Your task to perform on an android device: When is my next appointment? Image 0: 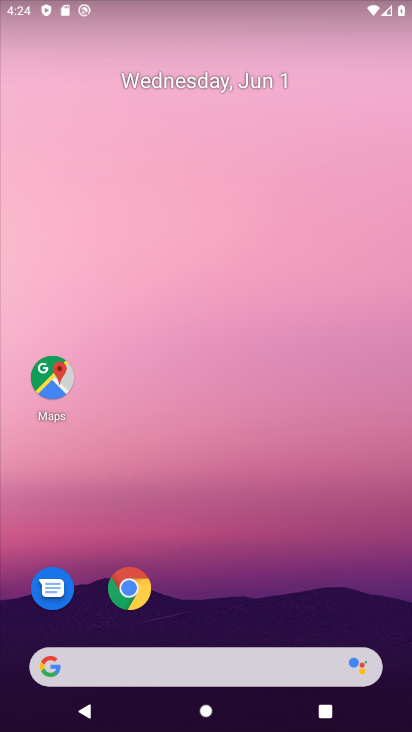
Step 0: drag from (287, 604) to (269, 186)
Your task to perform on an android device: When is my next appointment? Image 1: 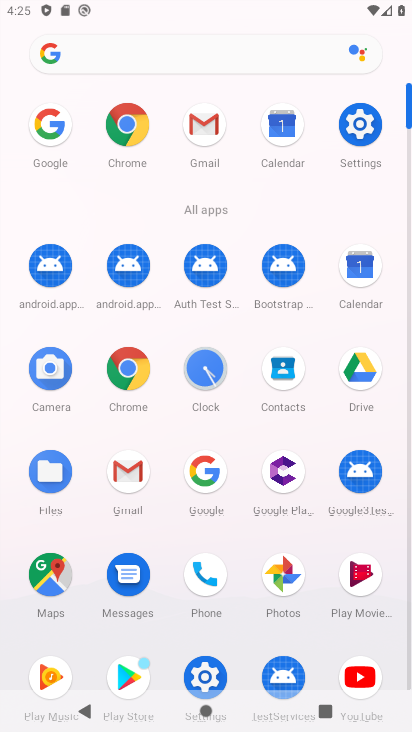
Step 1: drag from (244, 571) to (246, 308)
Your task to perform on an android device: When is my next appointment? Image 2: 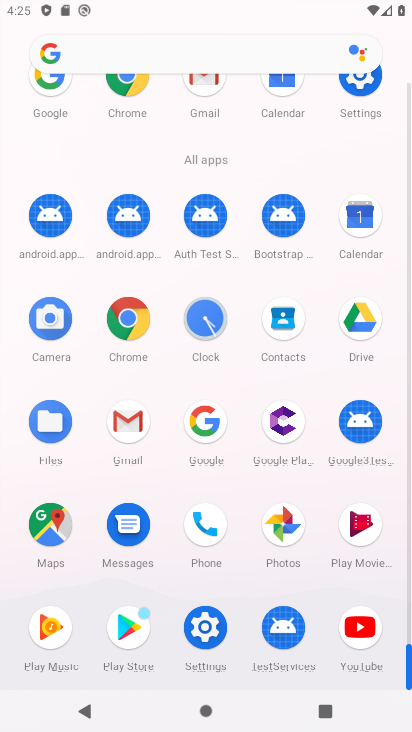
Step 2: click (360, 218)
Your task to perform on an android device: When is my next appointment? Image 3: 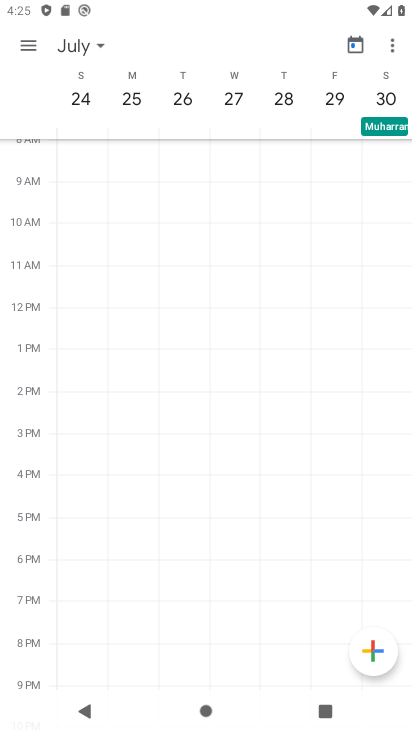
Step 3: click (355, 46)
Your task to perform on an android device: When is my next appointment? Image 4: 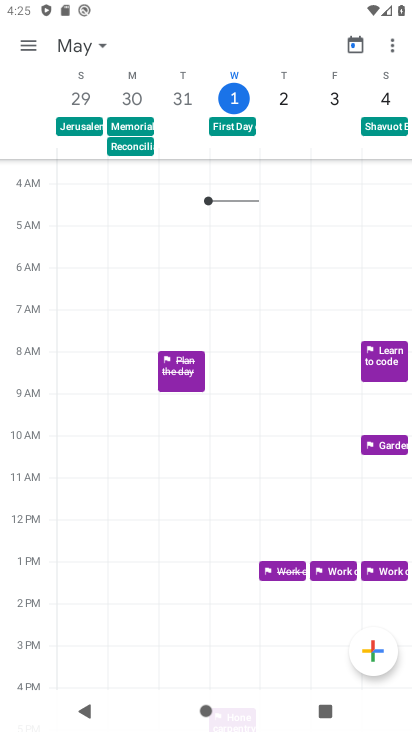
Step 4: click (101, 46)
Your task to perform on an android device: When is my next appointment? Image 5: 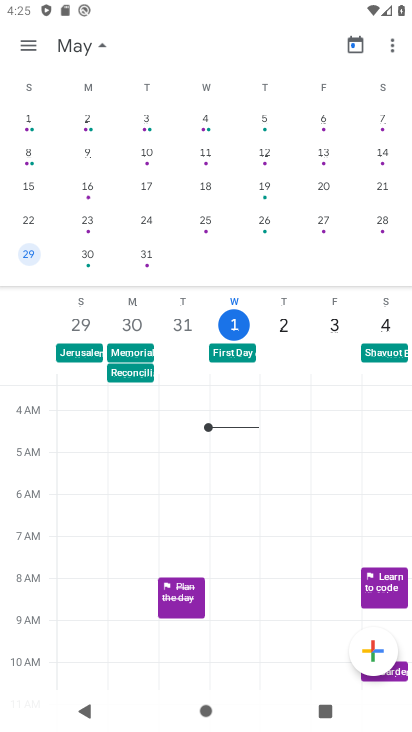
Step 5: drag from (369, 187) to (6, 220)
Your task to perform on an android device: When is my next appointment? Image 6: 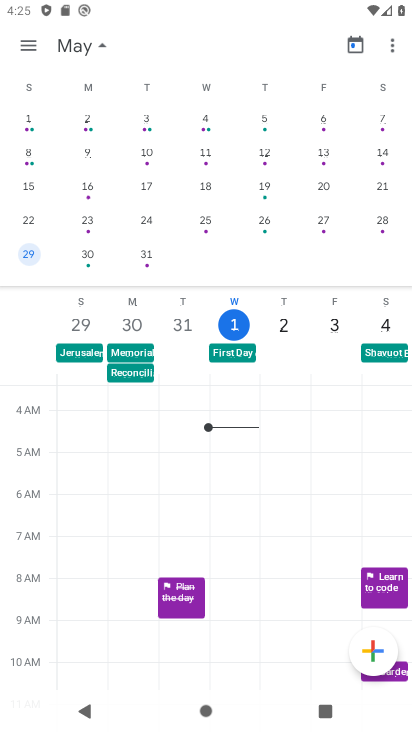
Step 6: drag from (379, 138) to (9, 162)
Your task to perform on an android device: When is my next appointment? Image 7: 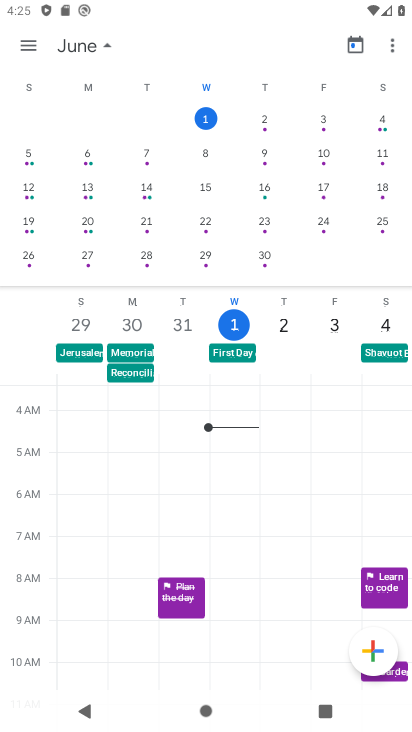
Step 7: click (259, 120)
Your task to perform on an android device: When is my next appointment? Image 8: 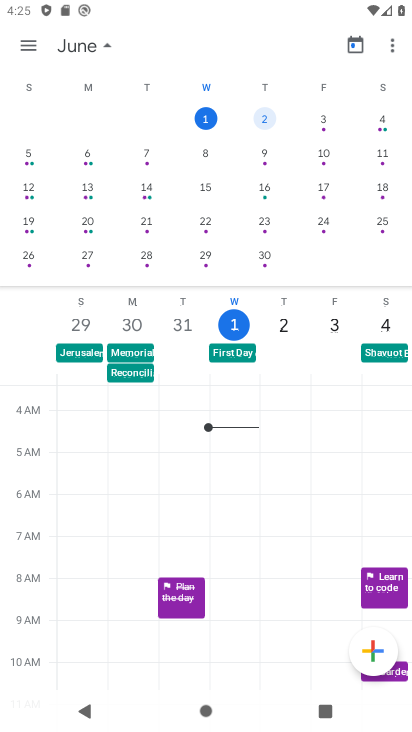
Step 8: click (28, 48)
Your task to perform on an android device: When is my next appointment? Image 9: 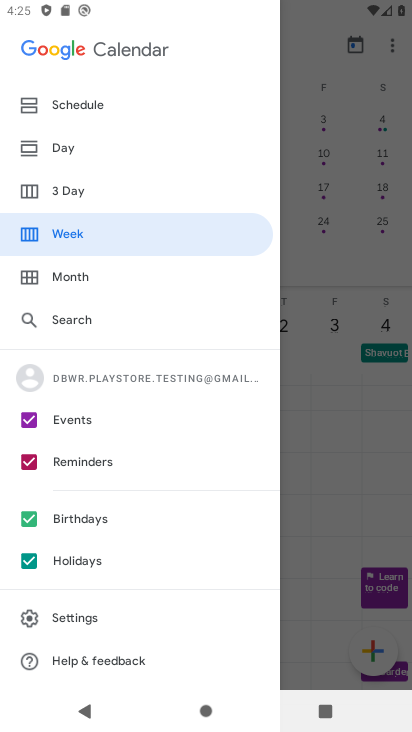
Step 9: click (53, 99)
Your task to perform on an android device: When is my next appointment? Image 10: 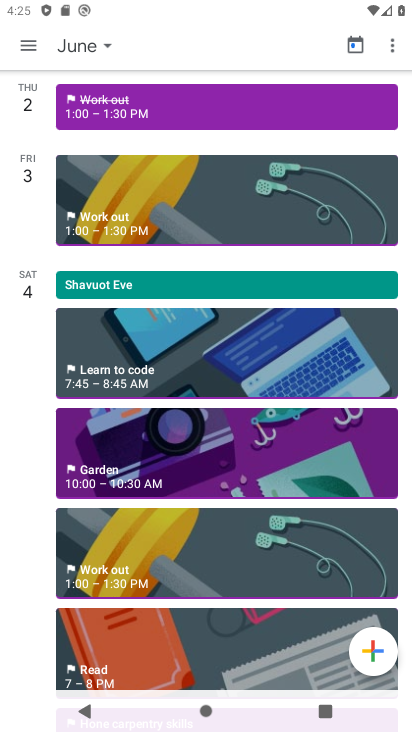
Step 10: task complete